Your task to perform on an android device: Go to calendar. Show me events next week Image 0: 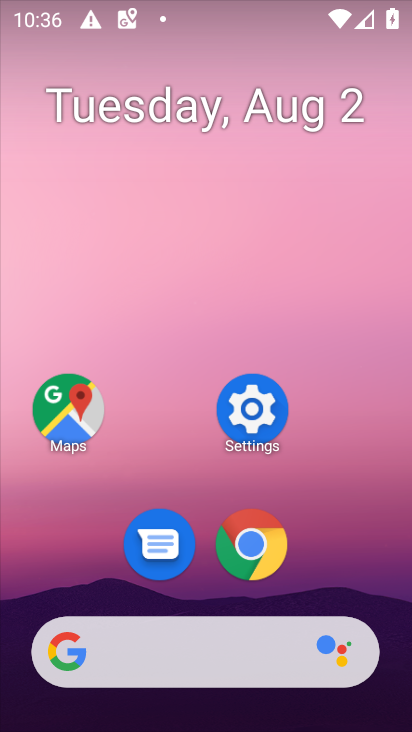
Step 0: drag from (182, 612) to (288, 145)
Your task to perform on an android device: Go to calendar. Show me events next week Image 1: 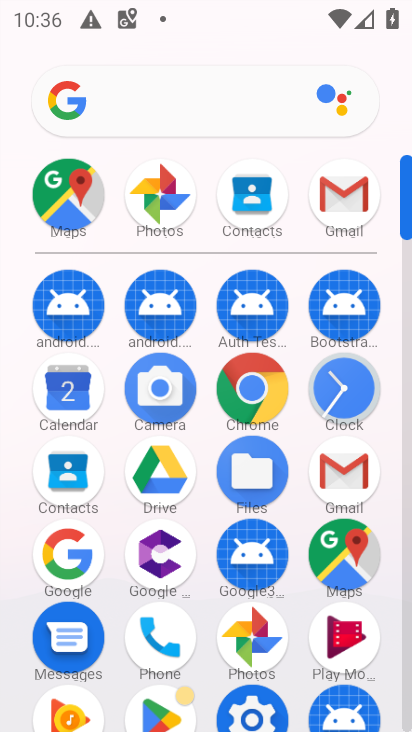
Step 1: click (72, 395)
Your task to perform on an android device: Go to calendar. Show me events next week Image 2: 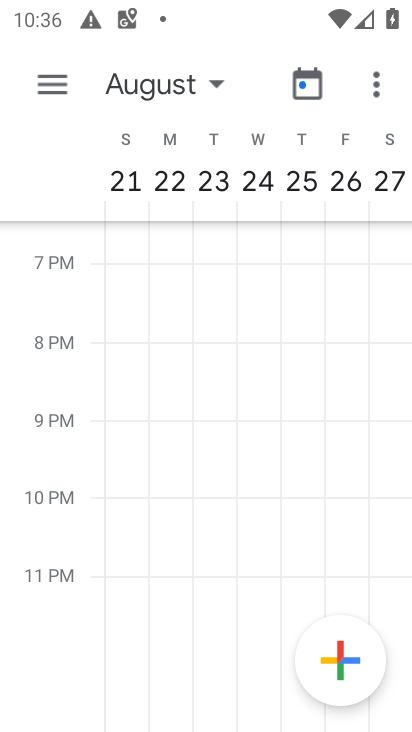
Step 2: click (137, 84)
Your task to perform on an android device: Go to calendar. Show me events next week Image 3: 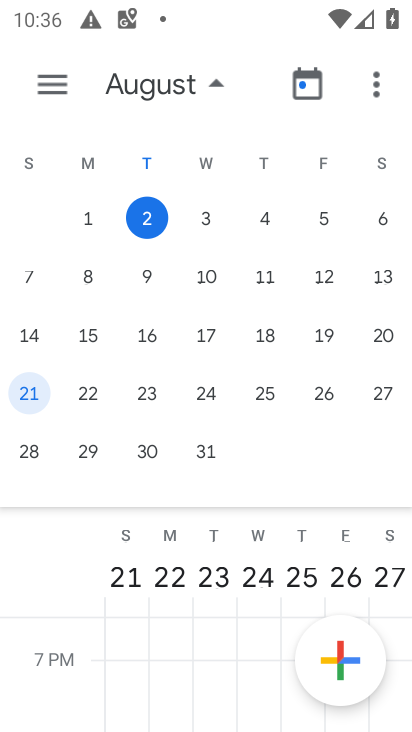
Step 3: drag from (53, 313) to (373, 387)
Your task to perform on an android device: Go to calendar. Show me events next week Image 4: 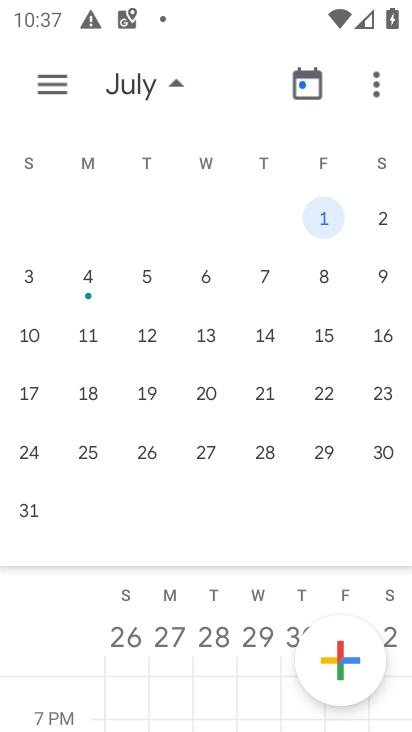
Step 4: drag from (306, 362) to (12, 475)
Your task to perform on an android device: Go to calendar. Show me events next week Image 5: 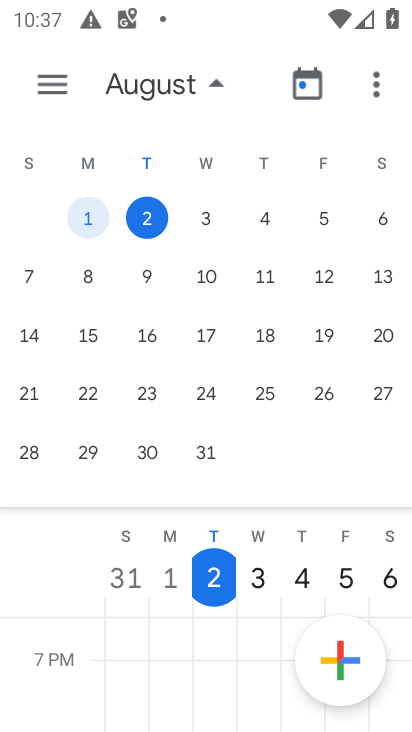
Step 5: click (25, 281)
Your task to perform on an android device: Go to calendar. Show me events next week Image 6: 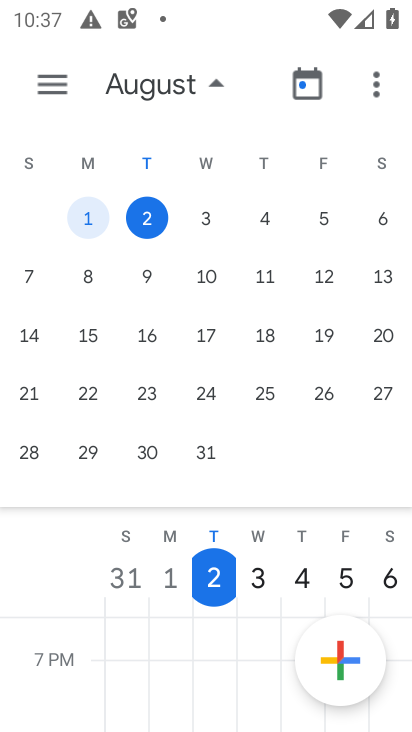
Step 6: click (32, 273)
Your task to perform on an android device: Go to calendar. Show me events next week Image 7: 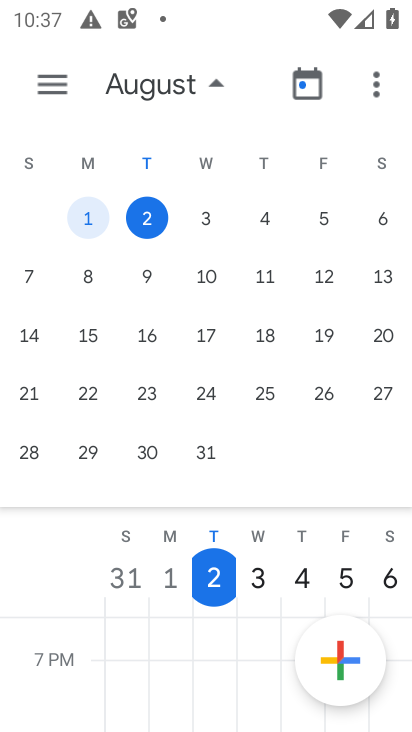
Step 7: click (40, 282)
Your task to perform on an android device: Go to calendar. Show me events next week Image 8: 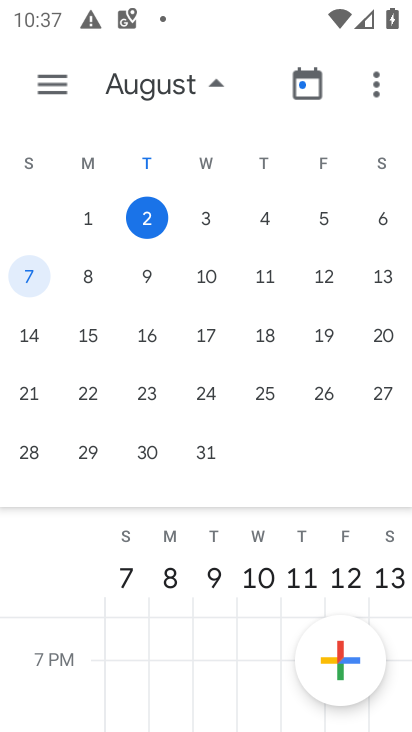
Step 8: click (59, 84)
Your task to perform on an android device: Go to calendar. Show me events next week Image 9: 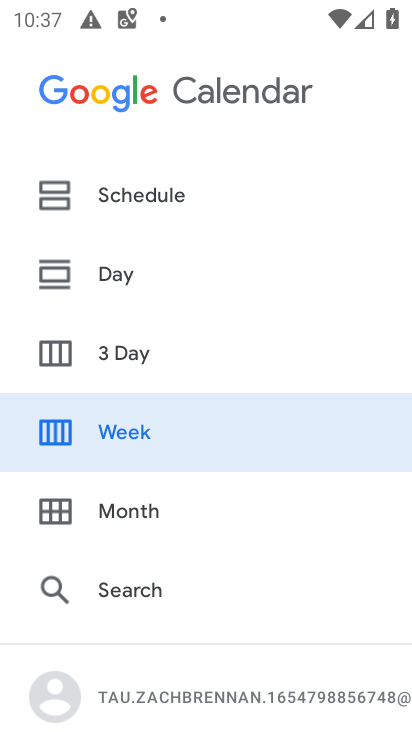
Step 9: click (119, 423)
Your task to perform on an android device: Go to calendar. Show me events next week Image 10: 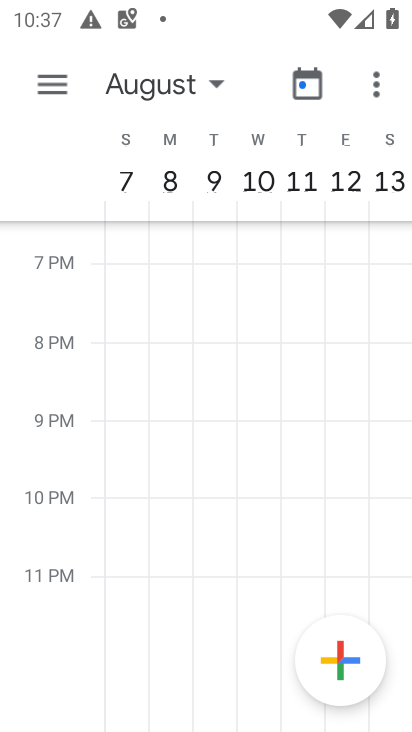
Step 10: click (60, 84)
Your task to perform on an android device: Go to calendar. Show me events next week Image 11: 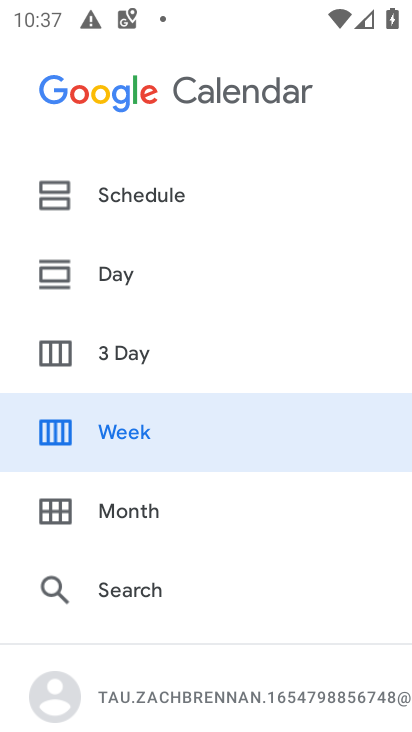
Step 11: click (155, 199)
Your task to perform on an android device: Go to calendar. Show me events next week Image 12: 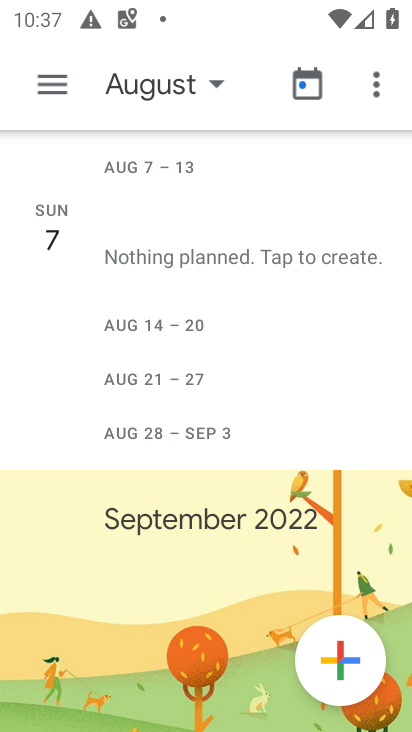
Step 12: task complete